Your task to perform on an android device: Open calendar and show me the second week of next month Image 0: 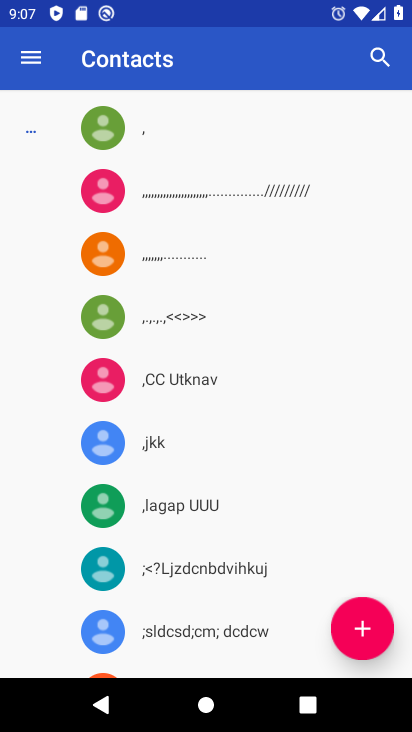
Step 0: press home button
Your task to perform on an android device: Open calendar and show me the second week of next month Image 1: 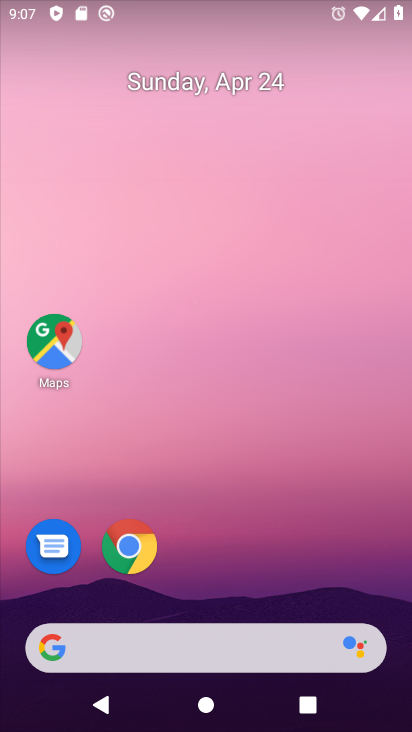
Step 1: drag from (267, 354) to (290, 105)
Your task to perform on an android device: Open calendar and show me the second week of next month Image 2: 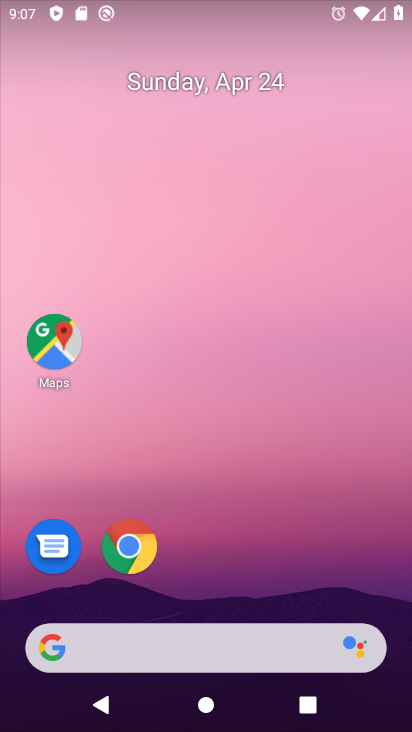
Step 2: drag from (247, 420) to (275, 86)
Your task to perform on an android device: Open calendar and show me the second week of next month Image 3: 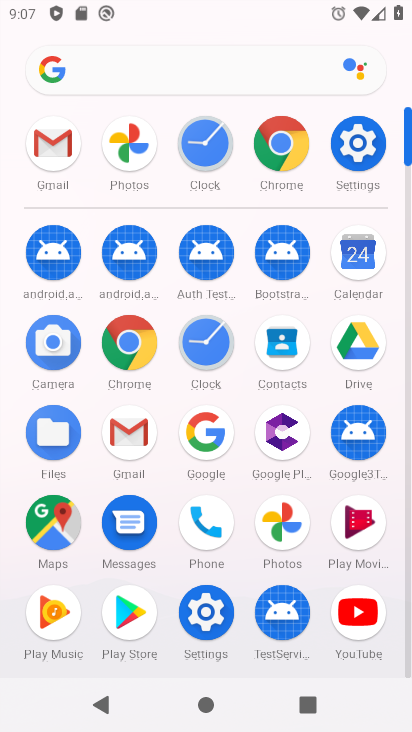
Step 3: click (365, 245)
Your task to perform on an android device: Open calendar and show me the second week of next month Image 4: 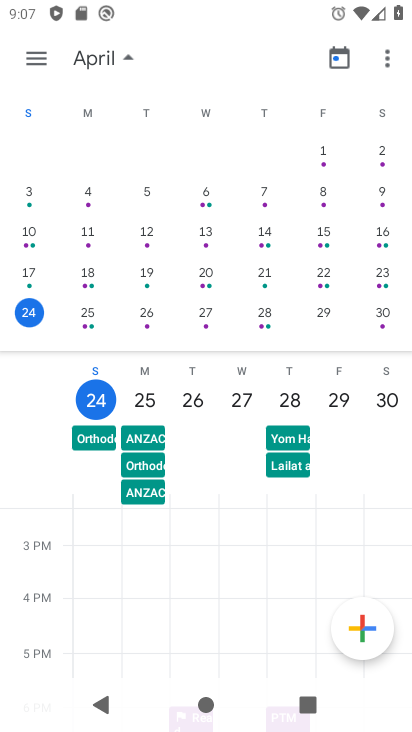
Step 4: click (118, 54)
Your task to perform on an android device: Open calendar and show me the second week of next month Image 5: 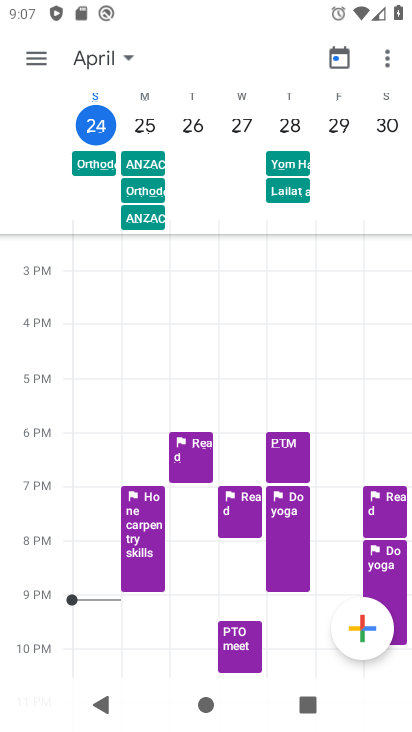
Step 5: click (123, 54)
Your task to perform on an android device: Open calendar and show me the second week of next month Image 6: 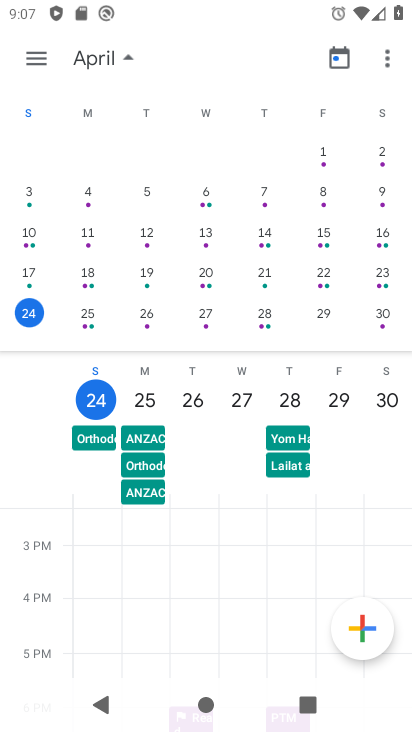
Step 6: drag from (390, 216) to (0, 82)
Your task to perform on an android device: Open calendar and show me the second week of next month Image 7: 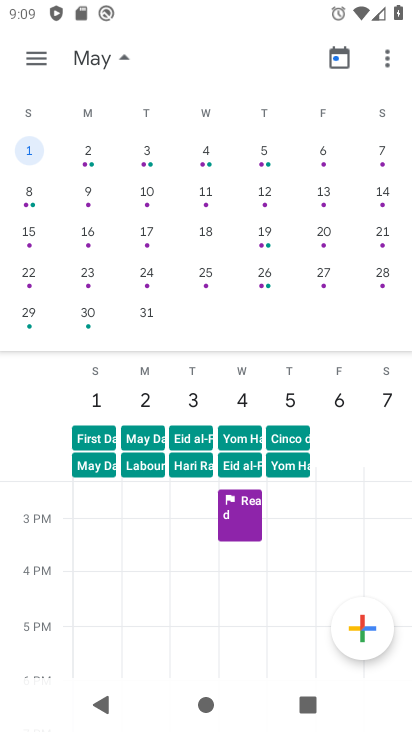
Step 7: click (40, 50)
Your task to perform on an android device: Open calendar and show me the second week of next month Image 8: 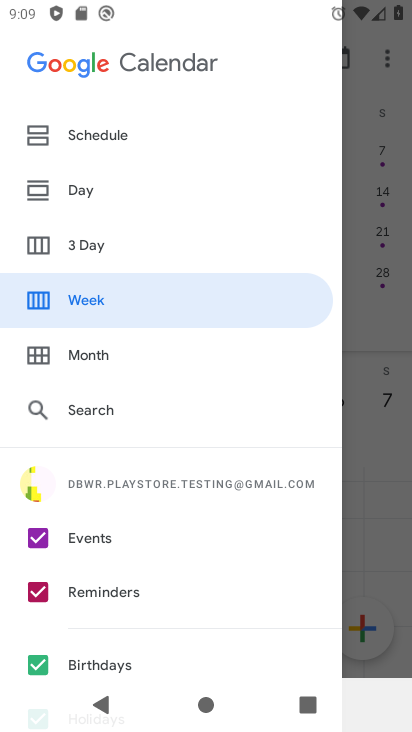
Step 8: click (194, 293)
Your task to perform on an android device: Open calendar and show me the second week of next month Image 9: 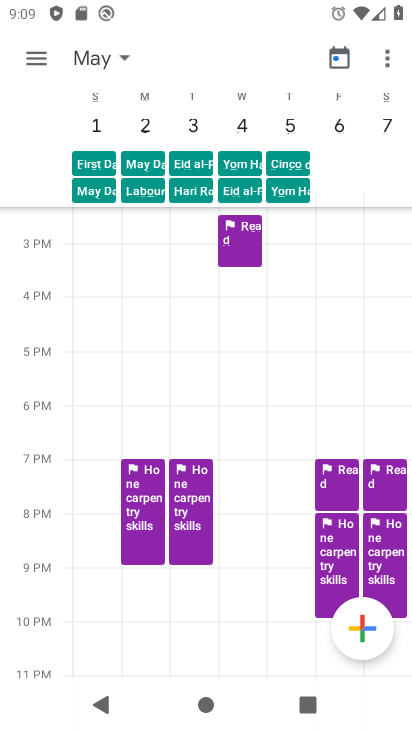
Step 9: task complete